Your task to perform on an android device: Do I have any events this weekend? Image 0: 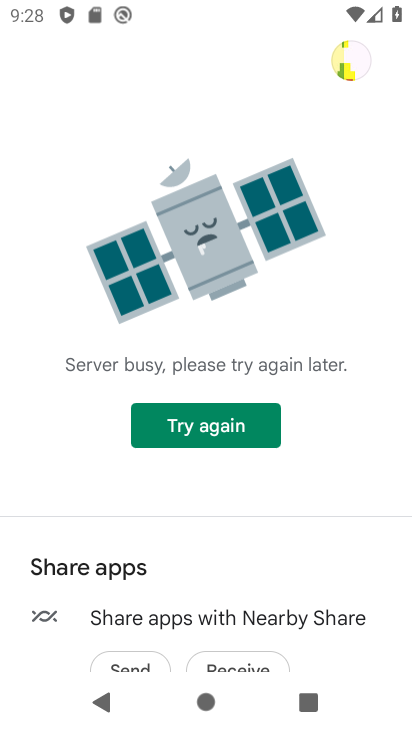
Step 0: press home button
Your task to perform on an android device: Do I have any events this weekend? Image 1: 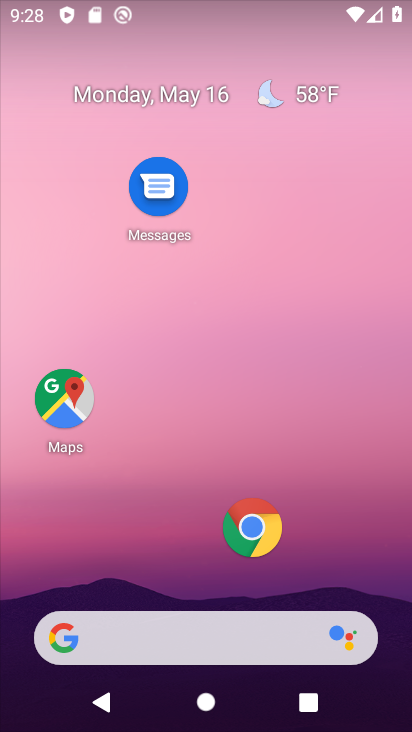
Step 1: drag from (181, 554) to (165, 124)
Your task to perform on an android device: Do I have any events this weekend? Image 2: 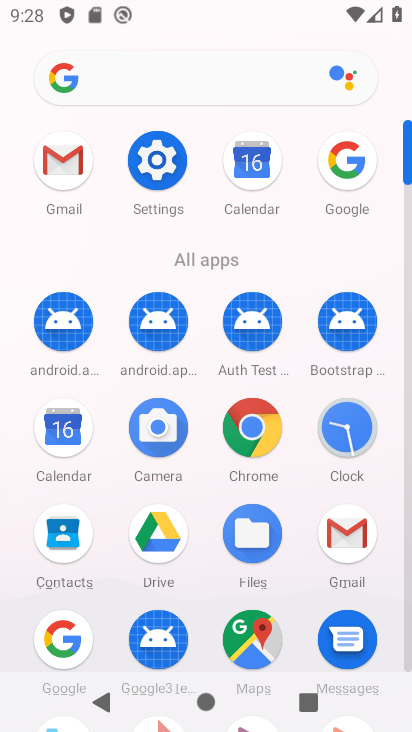
Step 2: click (64, 426)
Your task to perform on an android device: Do I have any events this weekend? Image 3: 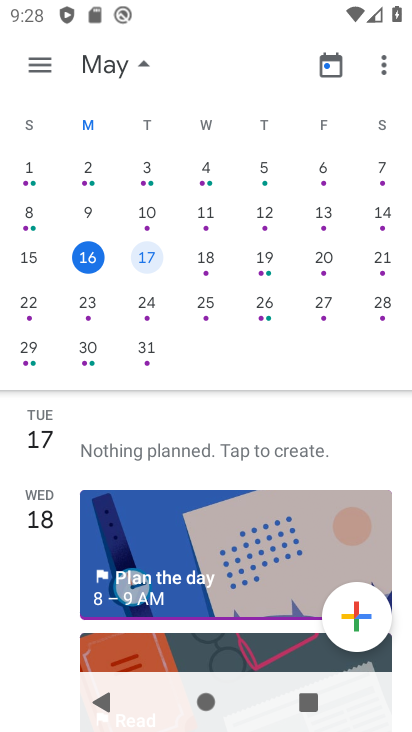
Step 3: click (332, 255)
Your task to perform on an android device: Do I have any events this weekend? Image 4: 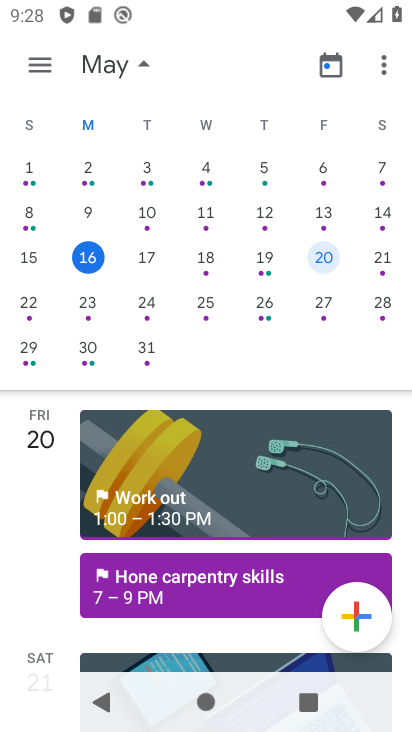
Step 4: task complete